Your task to perform on an android device: Open Chrome and go to settings Image 0: 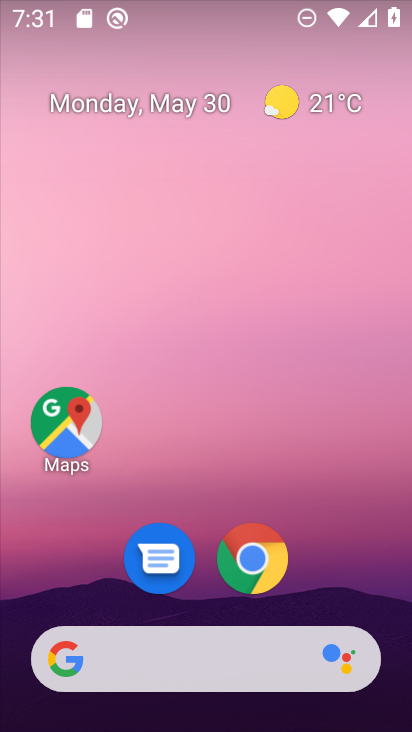
Step 0: drag from (336, 547) to (277, 144)
Your task to perform on an android device: Open Chrome and go to settings Image 1: 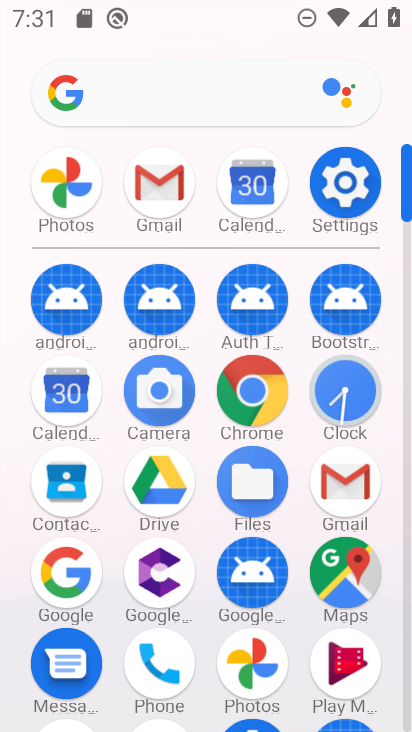
Step 1: click (247, 382)
Your task to perform on an android device: Open Chrome and go to settings Image 2: 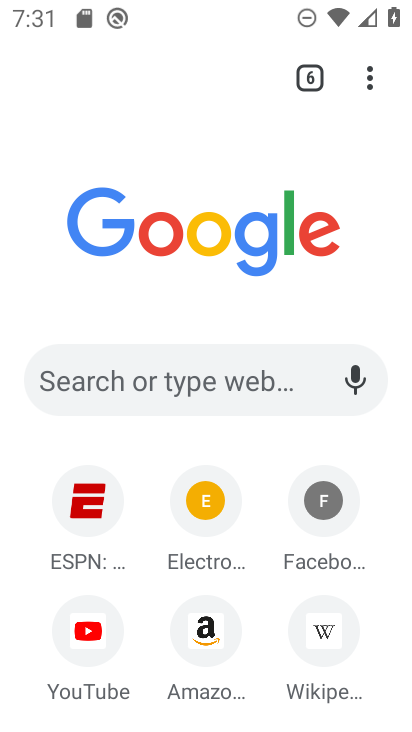
Step 2: click (369, 77)
Your task to perform on an android device: Open Chrome and go to settings Image 3: 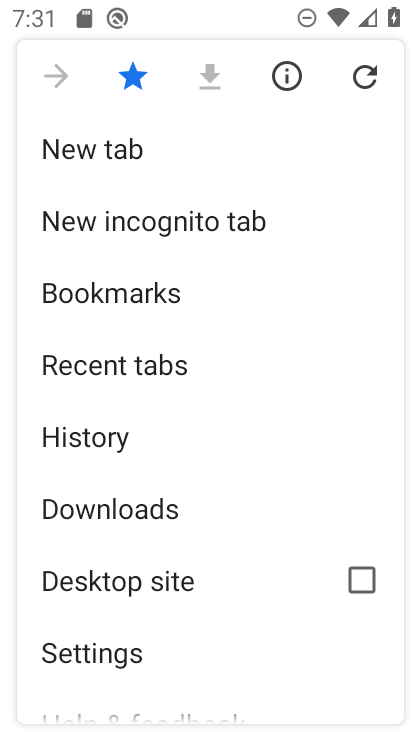
Step 3: click (101, 649)
Your task to perform on an android device: Open Chrome and go to settings Image 4: 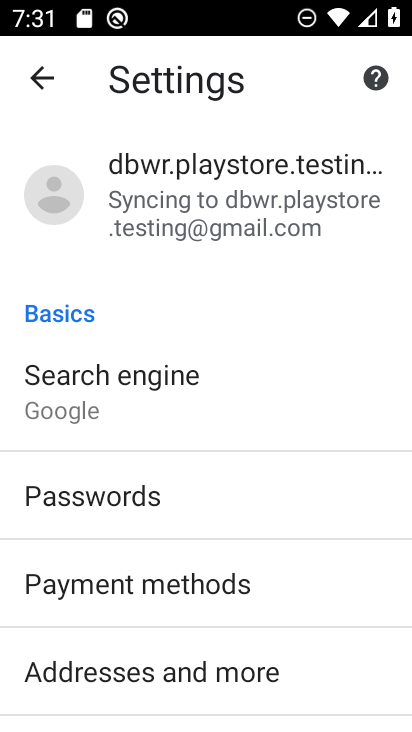
Step 4: task complete